Your task to perform on an android device: Open calendar and show me the fourth week of next month Image 0: 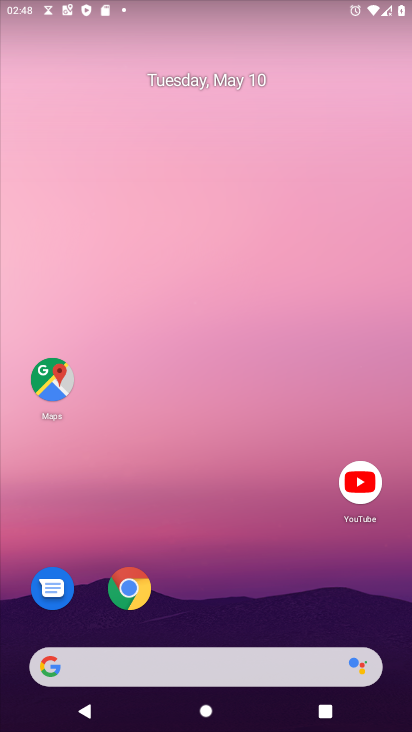
Step 0: drag from (291, 571) to (259, 253)
Your task to perform on an android device: Open calendar and show me the fourth week of next month Image 1: 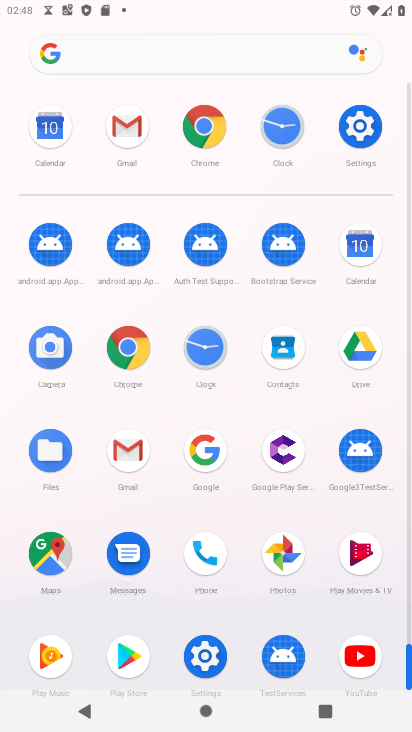
Step 1: click (354, 246)
Your task to perform on an android device: Open calendar and show me the fourth week of next month Image 2: 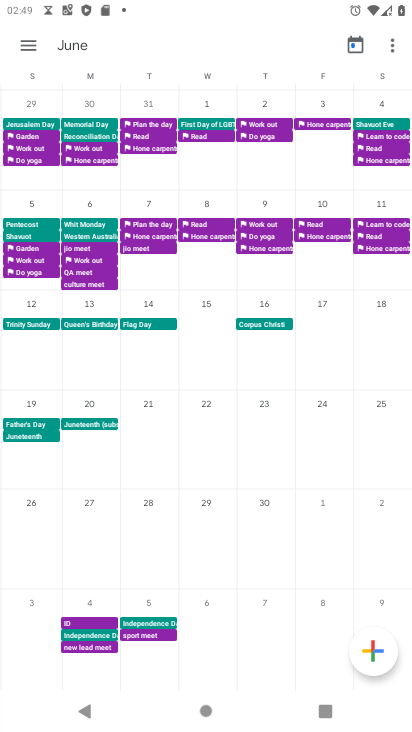
Step 2: task complete